Your task to perform on an android device: read, delete, or share a saved page in the chrome app Image 0: 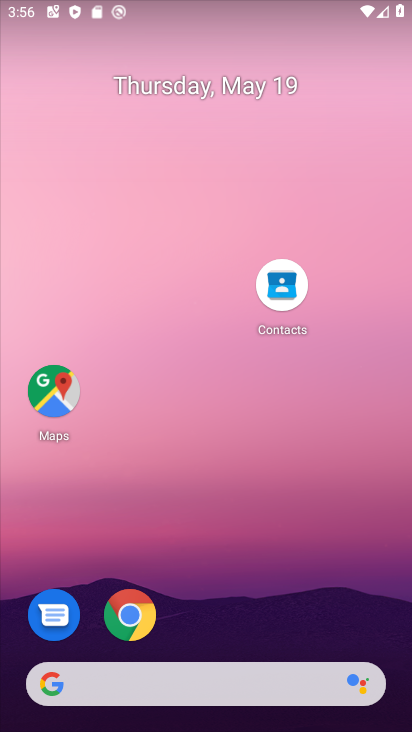
Step 0: drag from (215, 682) to (168, 132)
Your task to perform on an android device: read, delete, or share a saved page in the chrome app Image 1: 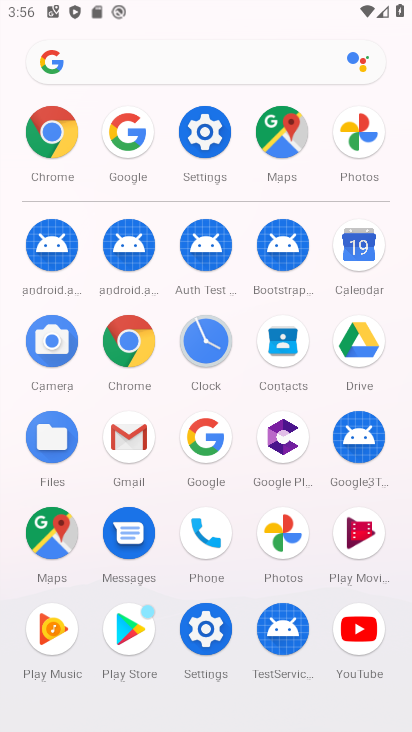
Step 1: click (136, 348)
Your task to perform on an android device: read, delete, or share a saved page in the chrome app Image 2: 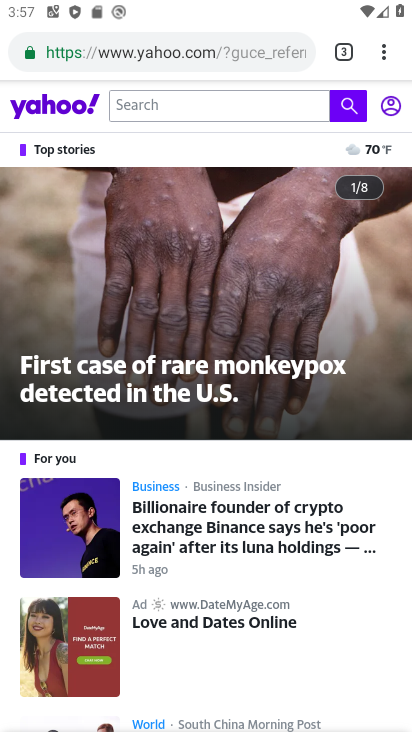
Step 2: click (383, 47)
Your task to perform on an android device: read, delete, or share a saved page in the chrome app Image 3: 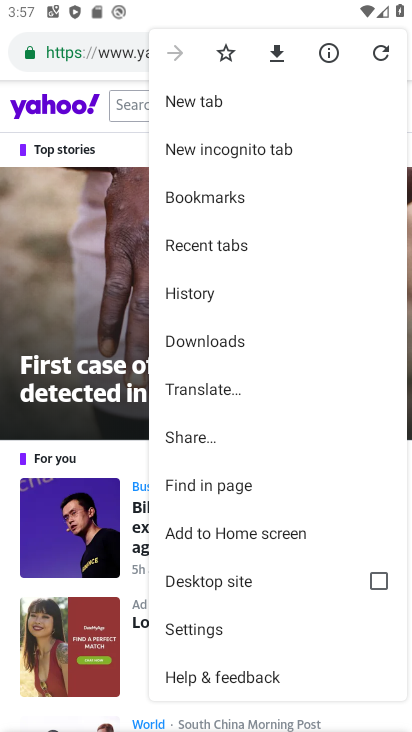
Step 3: click (220, 350)
Your task to perform on an android device: read, delete, or share a saved page in the chrome app Image 4: 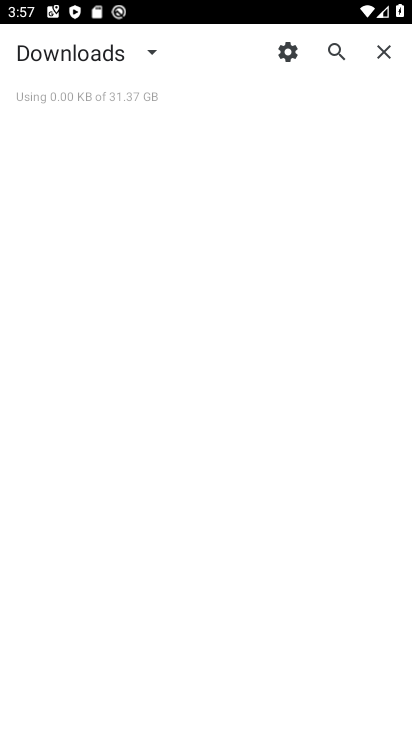
Step 4: click (136, 50)
Your task to perform on an android device: read, delete, or share a saved page in the chrome app Image 5: 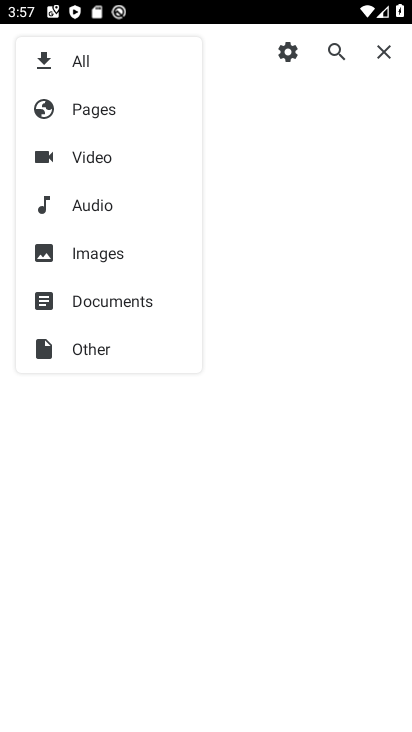
Step 5: click (99, 113)
Your task to perform on an android device: read, delete, or share a saved page in the chrome app Image 6: 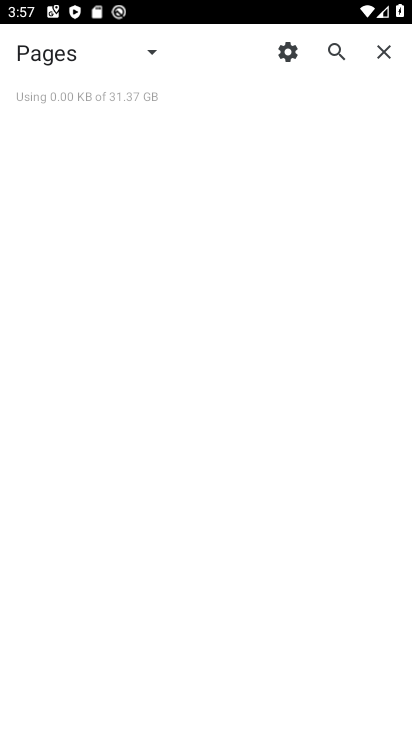
Step 6: task complete